Your task to perform on an android device: Do I have any events tomorrow? Image 0: 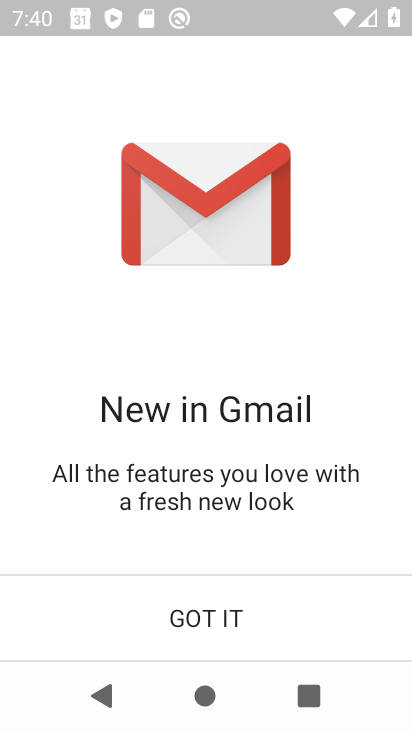
Step 0: press home button
Your task to perform on an android device: Do I have any events tomorrow? Image 1: 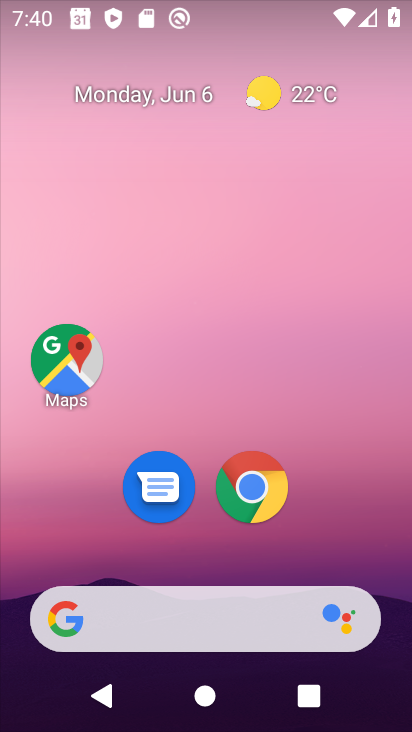
Step 1: drag from (364, 530) to (301, 122)
Your task to perform on an android device: Do I have any events tomorrow? Image 2: 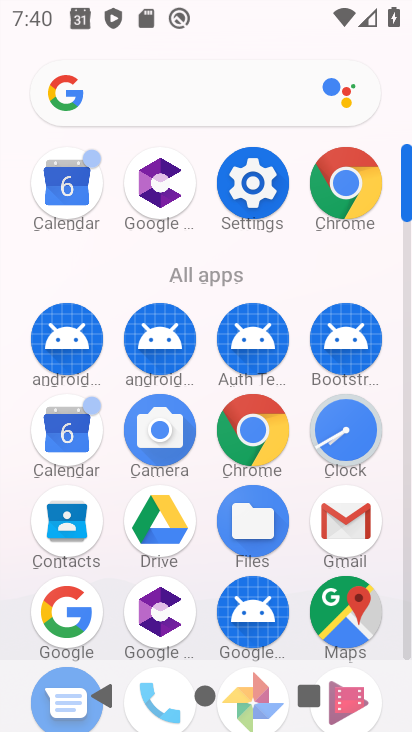
Step 2: click (65, 440)
Your task to perform on an android device: Do I have any events tomorrow? Image 3: 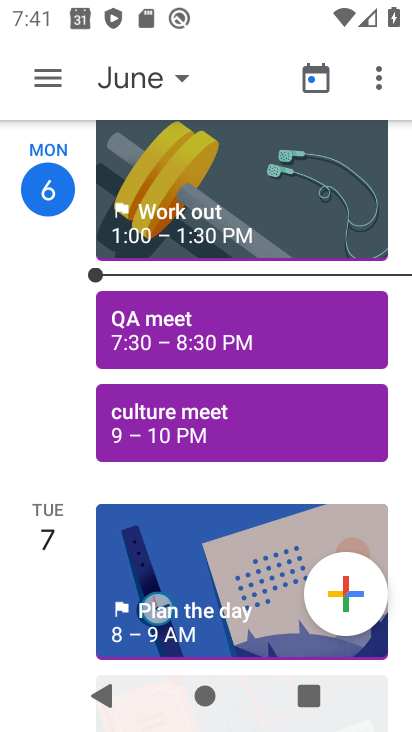
Step 3: task complete